Your task to perform on an android device: show emergency info Image 0: 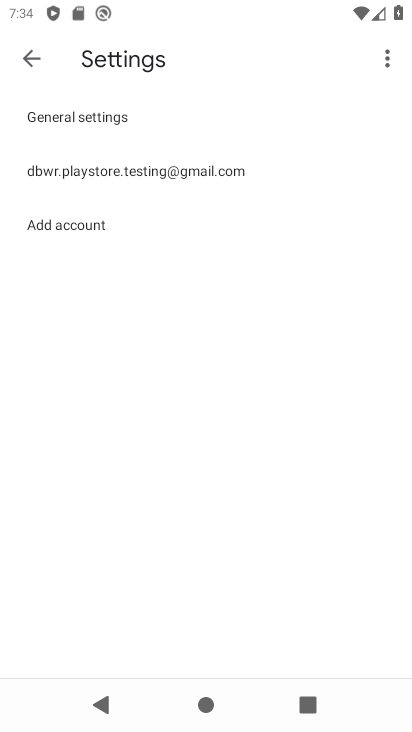
Step 0: press home button
Your task to perform on an android device: show emergency info Image 1: 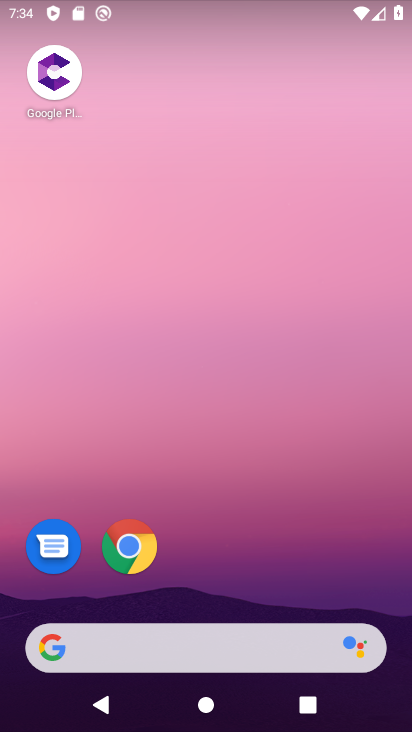
Step 1: drag from (246, 556) to (295, 52)
Your task to perform on an android device: show emergency info Image 2: 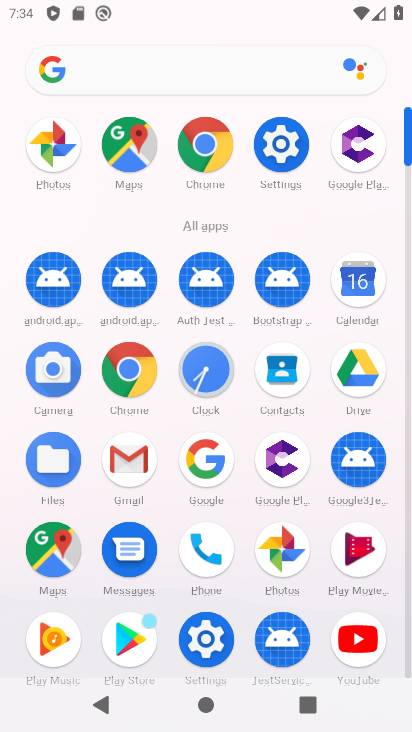
Step 2: click (274, 175)
Your task to perform on an android device: show emergency info Image 3: 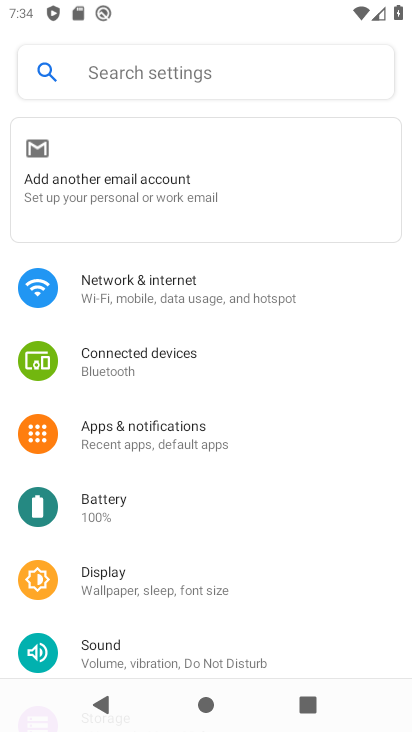
Step 3: drag from (148, 683) to (218, 180)
Your task to perform on an android device: show emergency info Image 4: 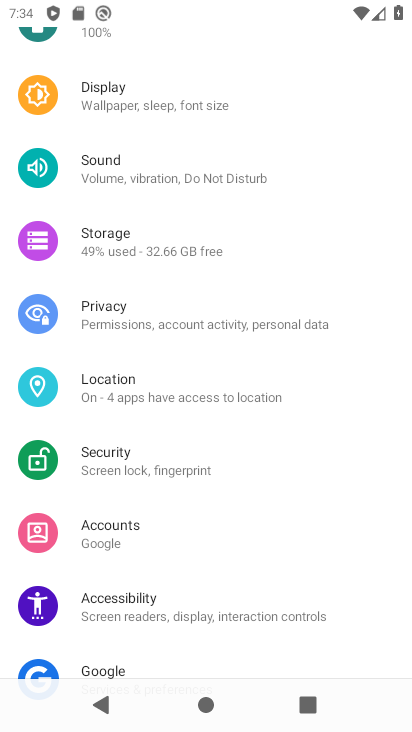
Step 4: drag from (213, 586) to (264, 91)
Your task to perform on an android device: show emergency info Image 5: 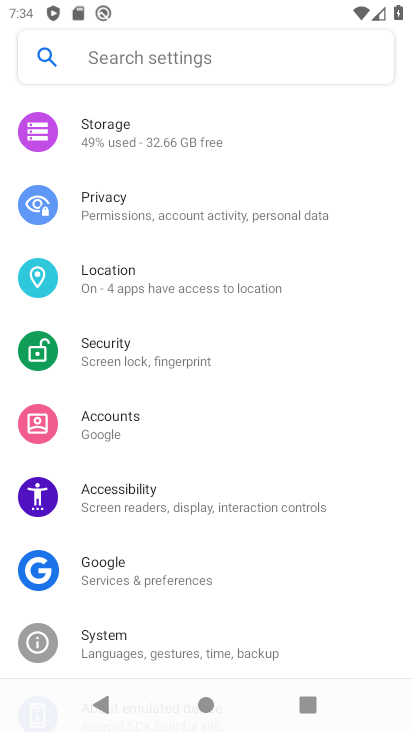
Step 5: drag from (206, 629) to (277, 358)
Your task to perform on an android device: show emergency info Image 6: 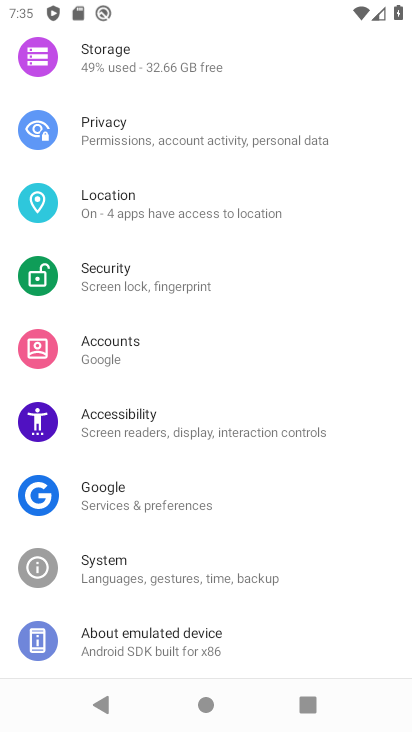
Step 6: click (163, 630)
Your task to perform on an android device: show emergency info Image 7: 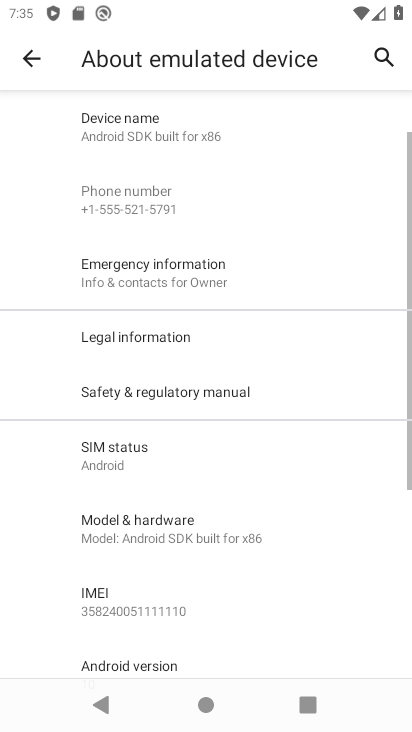
Step 7: click (208, 288)
Your task to perform on an android device: show emergency info Image 8: 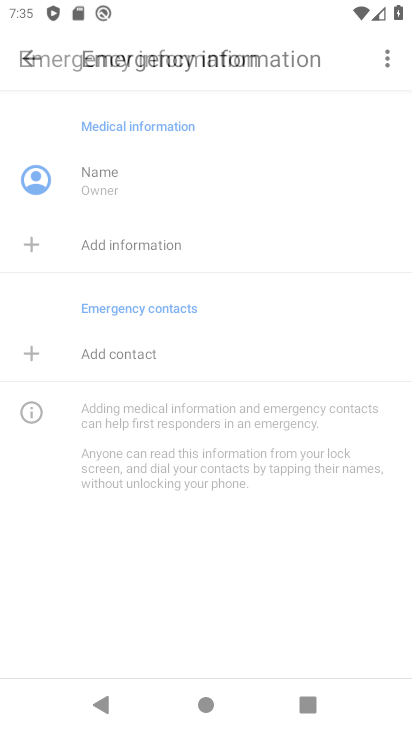
Step 8: task complete